Your task to perform on an android device: Open Wikipedia Image 0: 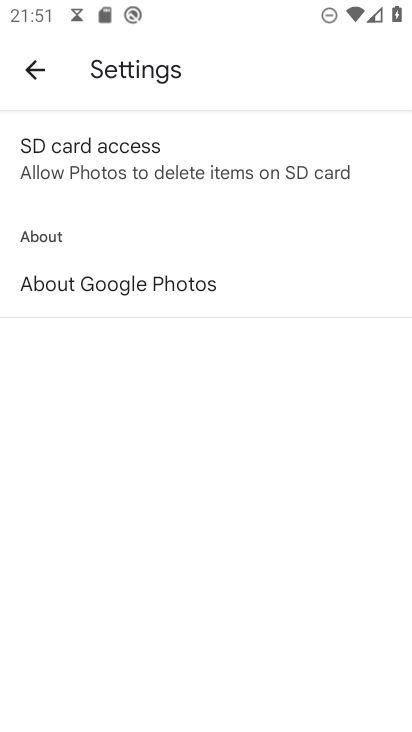
Step 0: press home button
Your task to perform on an android device: Open Wikipedia Image 1: 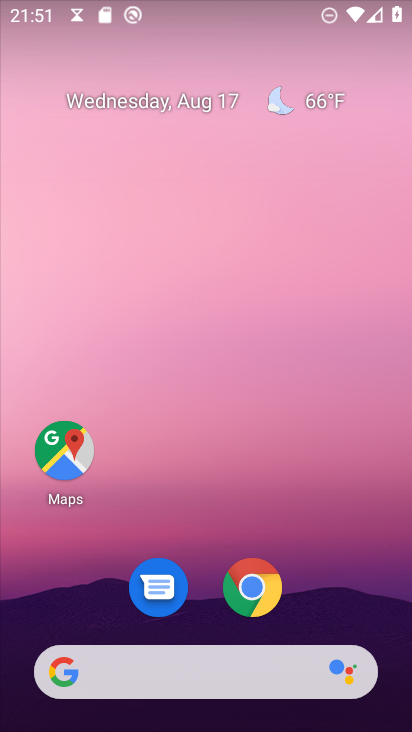
Step 1: click (139, 668)
Your task to perform on an android device: Open Wikipedia Image 2: 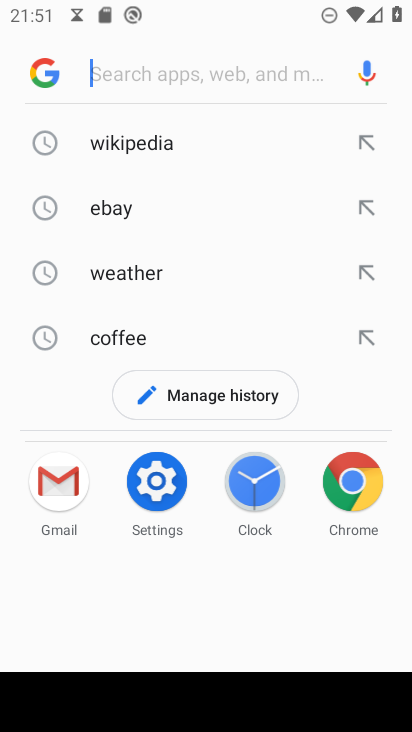
Step 2: click (107, 137)
Your task to perform on an android device: Open Wikipedia Image 3: 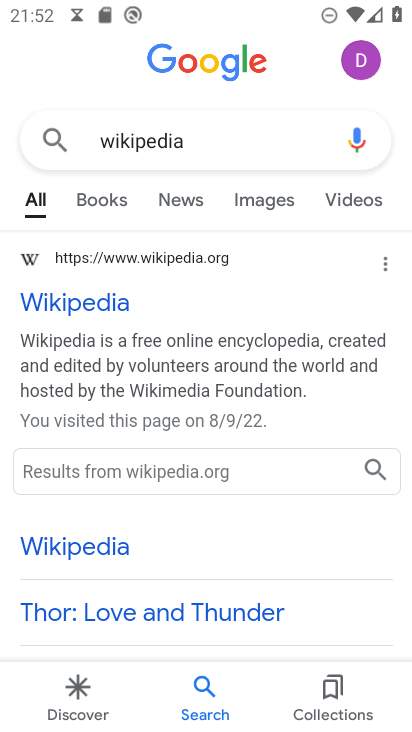
Step 3: click (107, 137)
Your task to perform on an android device: Open Wikipedia Image 4: 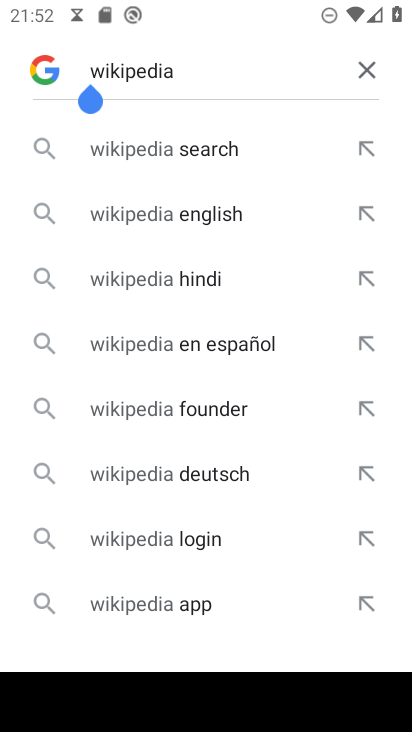
Step 4: task complete